Your task to perform on an android device: Open Maps and search for coffee Image 0: 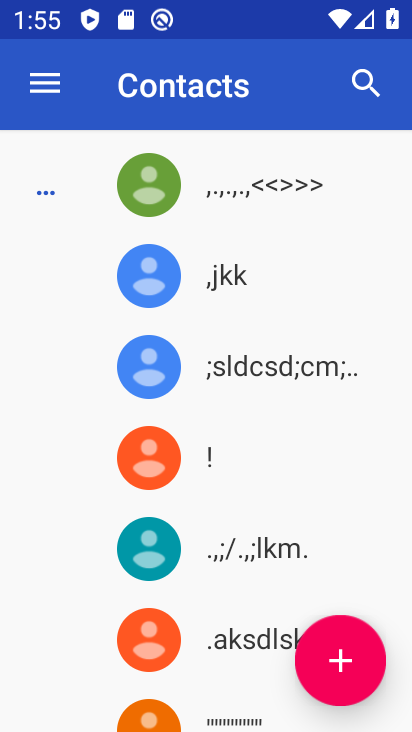
Step 0: press home button
Your task to perform on an android device: Open Maps and search for coffee Image 1: 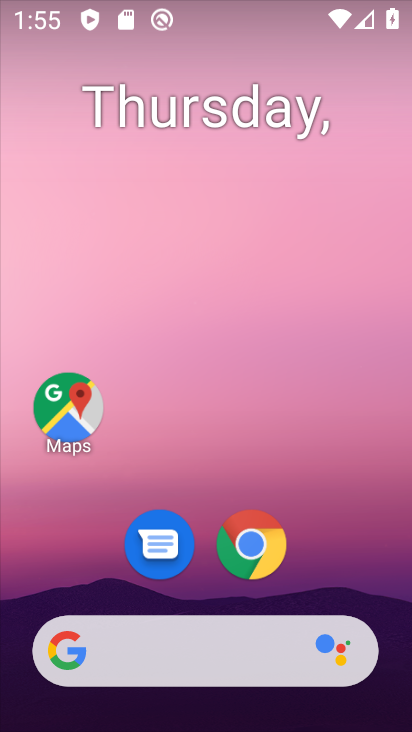
Step 1: drag from (326, 575) to (309, 214)
Your task to perform on an android device: Open Maps and search for coffee Image 2: 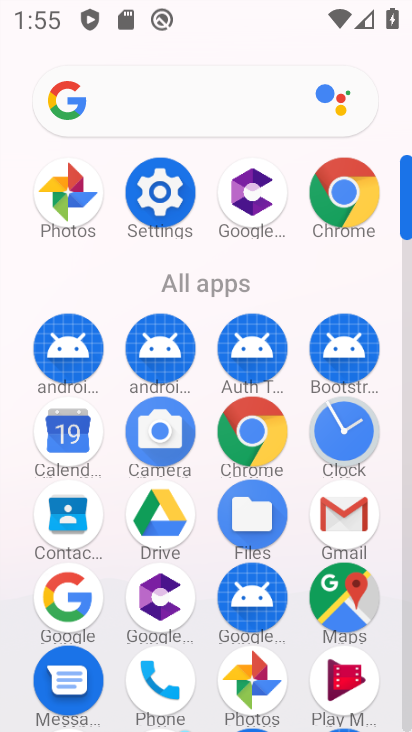
Step 2: click (352, 594)
Your task to perform on an android device: Open Maps and search for coffee Image 3: 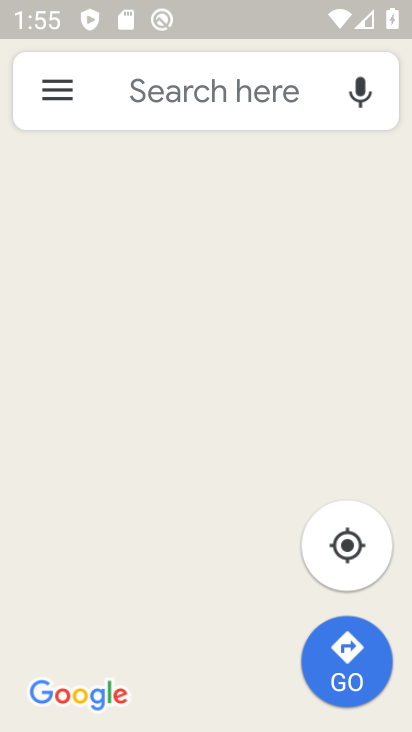
Step 3: click (207, 99)
Your task to perform on an android device: Open Maps and search for coffee Image 4: 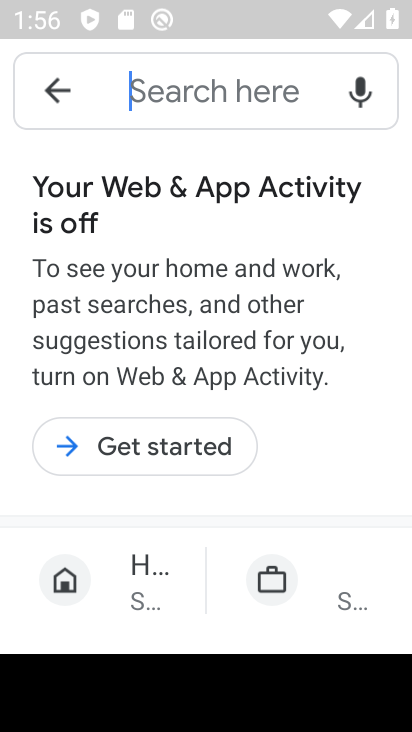
Step 4: click (33, 91)
Your task to perform on an android device: Open Maps and search for coffee Image 5: 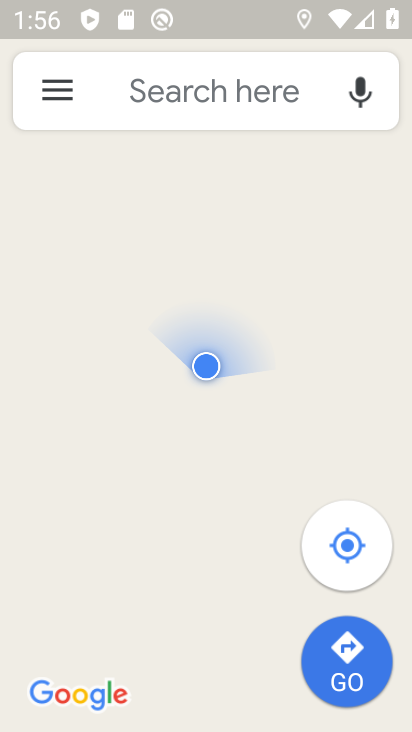
Step 5: click (166, 87)
Your task to perform on an android device: Open Maps and search for coffee Image 6: 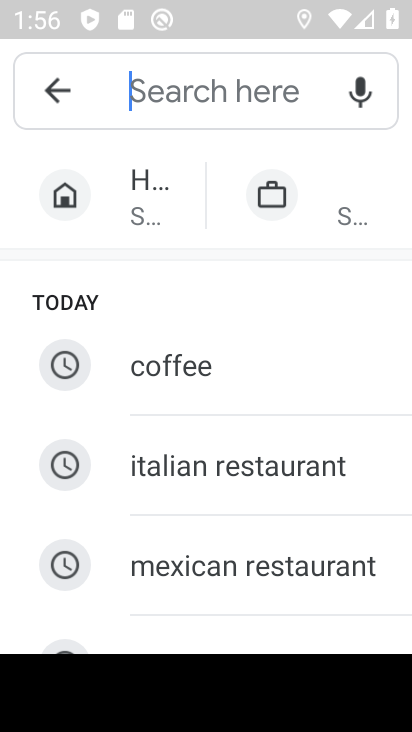
Step 6: click (181, 371)
Your task to perform on an android device: Open Maps and search for coffee Image 7: 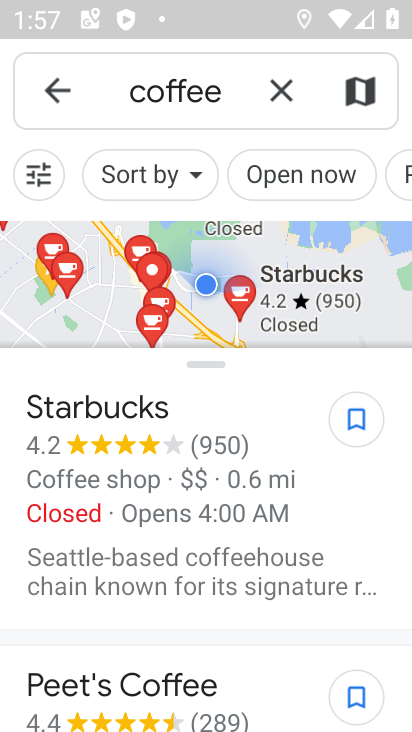
Step 7: task complete